Your task to perform on an android device: Go to eBay Image 0: 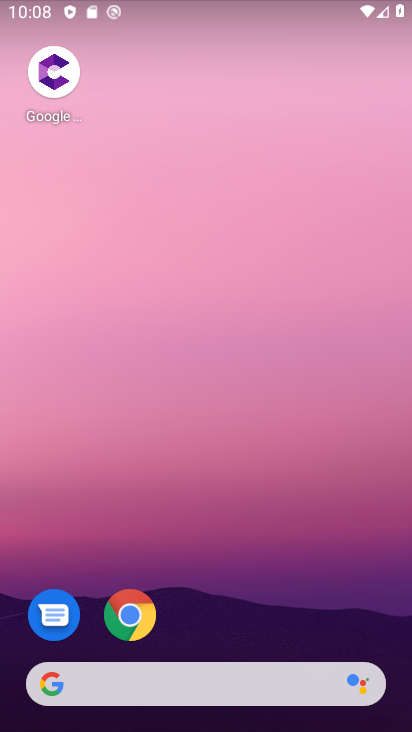
Step 0: click (139, 629)
Your task to perform on an android device: Go to eBay Image 1: 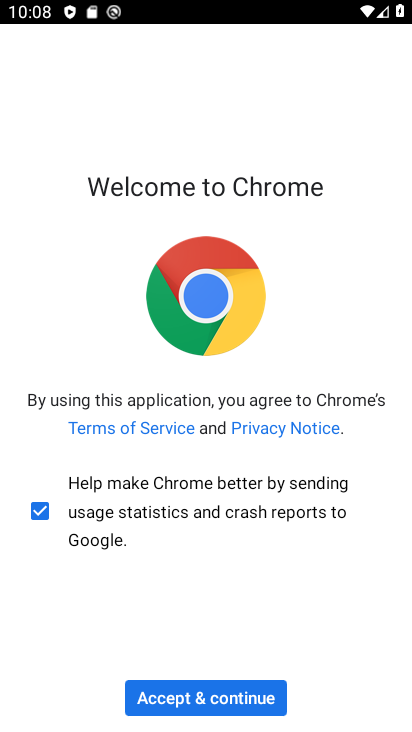
Step 1: click (182, 694)
Your task to perform on an android device: Go to eBay Image 2: 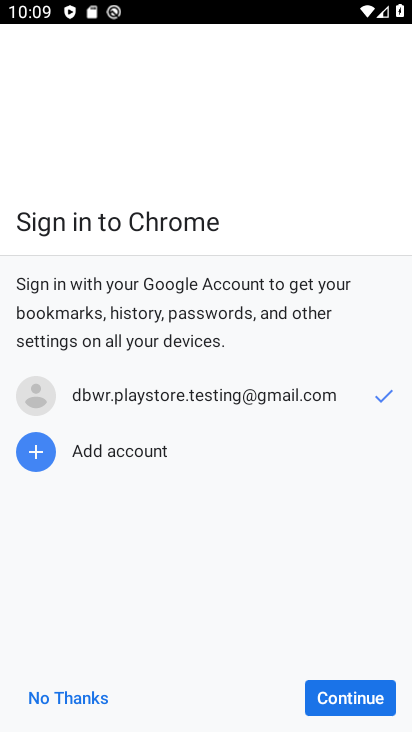
Step 2: click (354, 704)
Your task to perform on an android device: Go to eBay Image 3: 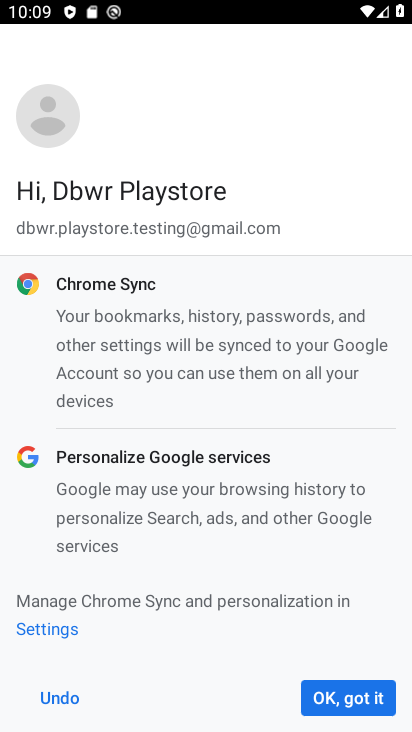
Step 3: click (374, 703)
Your task to perform on an android device: Go to eBay Image 4: 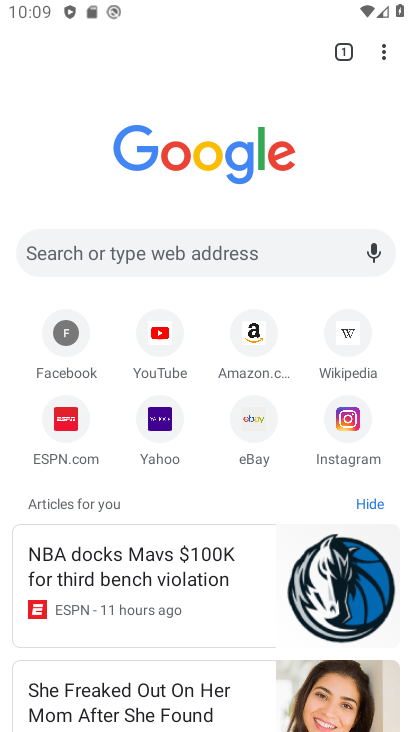
Step 4: click (245, 438)
Your task to perform on an android device: Go to eBay Image 5: 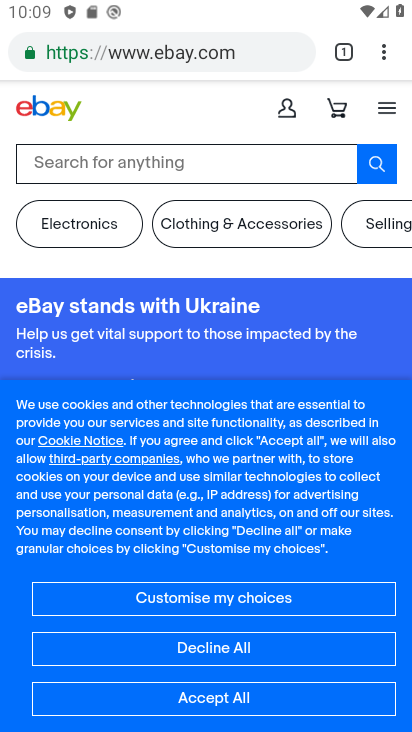
Step 5: task complete